Your task to perform on an android device: Open Google Image 0: 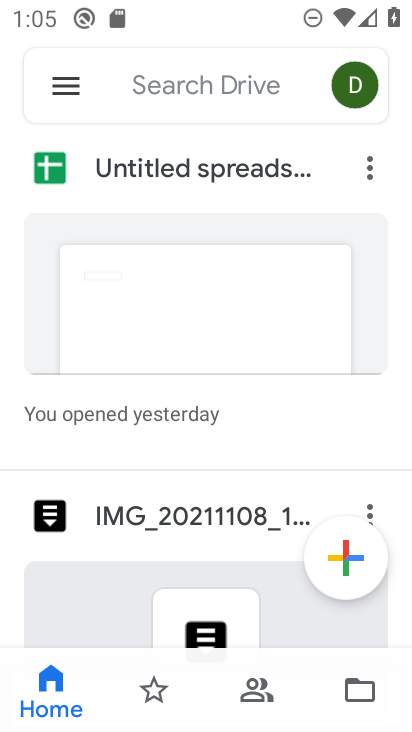
Step 0: press home button
Your task to perform on an android device: Open Google Image 1: 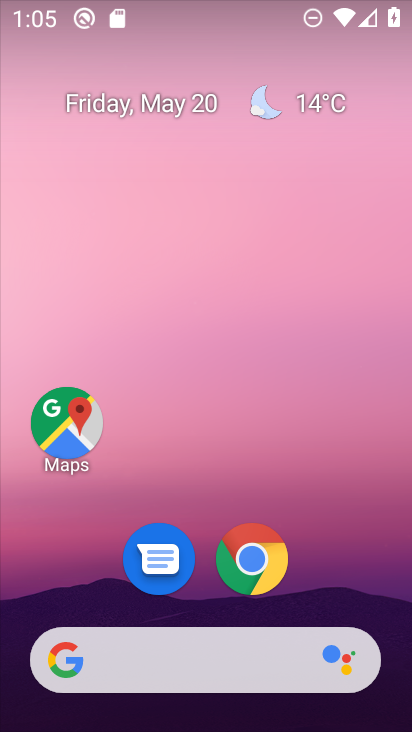
Step 1: click (247, 574)
Your task to perform on an android device: Open Google Image 2: 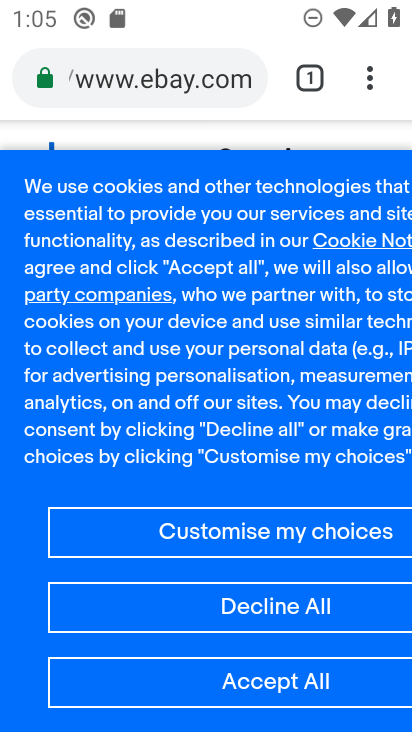
Step 2: click (175, 84)
Your task to perform on an android device: Open Google Image 3: 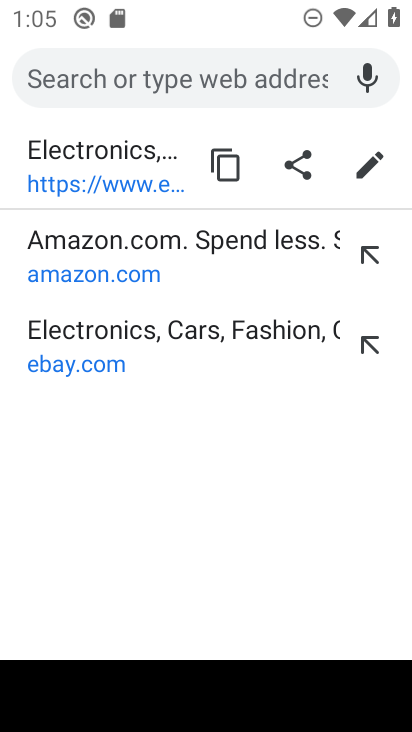
Step 3: type "google.com"
Your task to perform on an android device: Open Google Image 4: 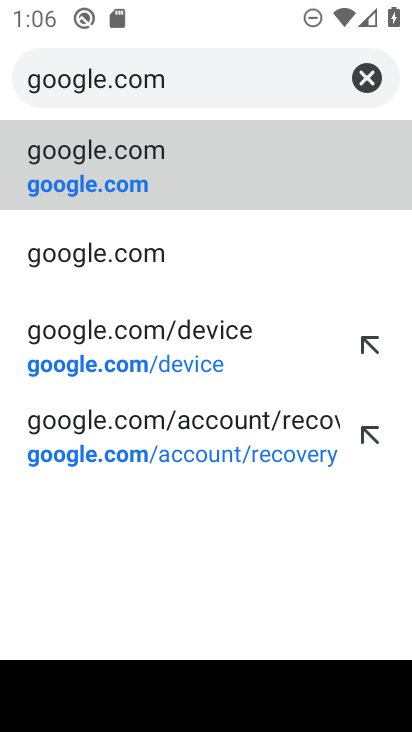
Step 4: click (243, 154)
Your task to perform on an android device: Open Google Image 5: 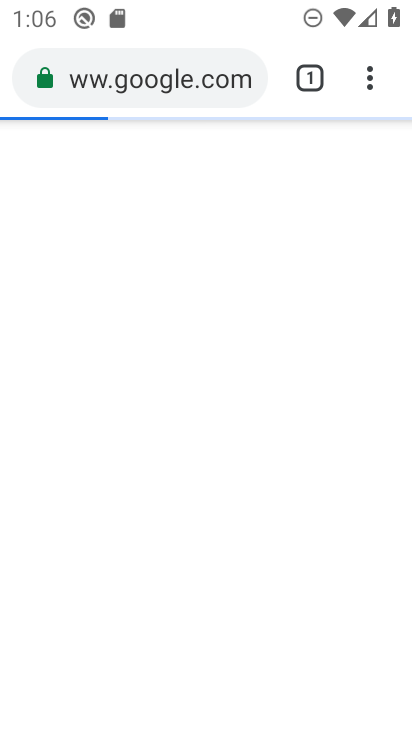
Step 5: task complete